Your task to perform on an android device: Open wifi settings Image 0: 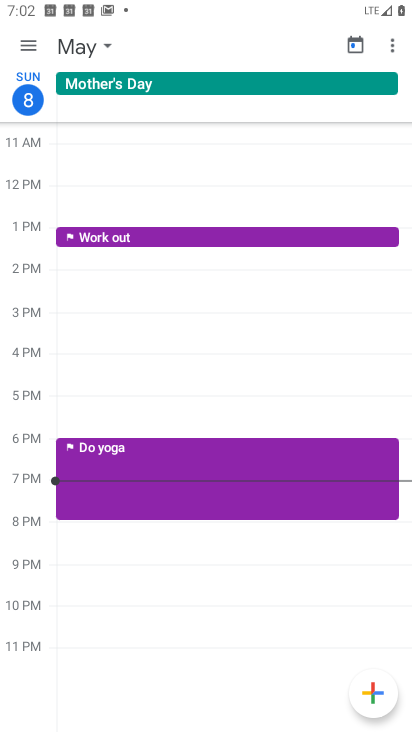
Step 0: press home button
Your task to perform on an android device: Open wifi settings Image 1: 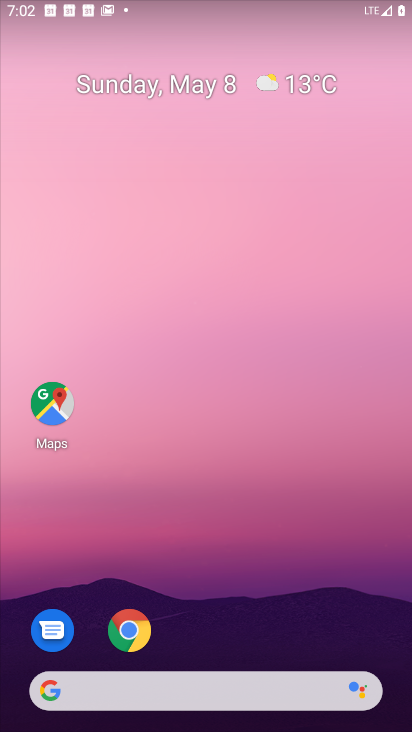
Step 1: drag from (257, 578) to (189, 114)
Your task to perform on an android device: Open wifi settings Image 2: 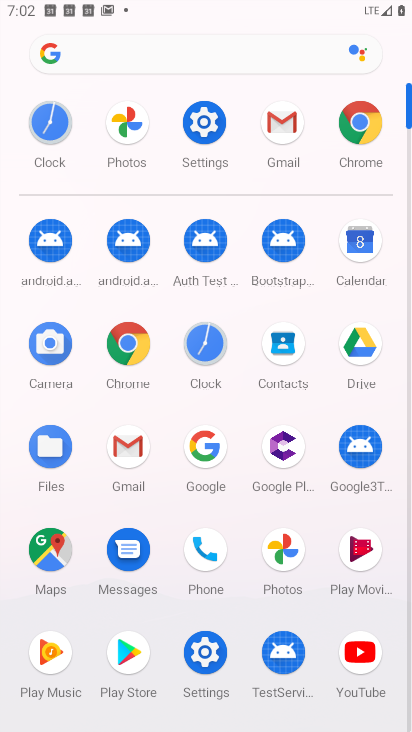
Step 2: click (203, 120)
Your task to perform on an android device: Open wifi settings Image 3: 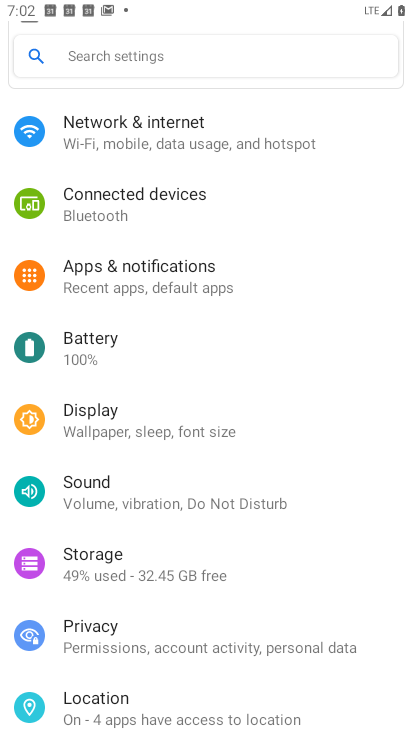
Step 3: click (129, 125)
Your task to perform on an android device: Open wifi settings Image 4: 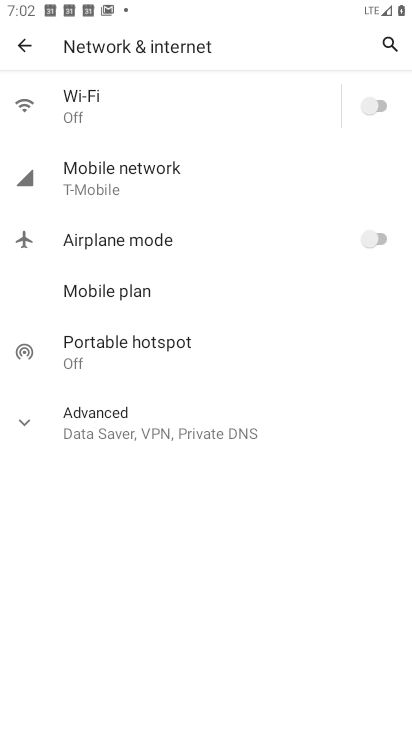
Step 4: click (79, 94)
Your task to perform on an android device: Open wifi settings Image 5: 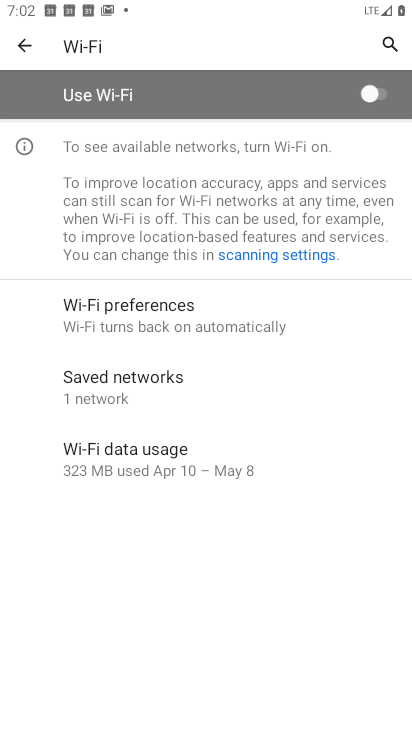
Step 5: task complete